Your task to perform on an android device: Show me recent news Image 0: 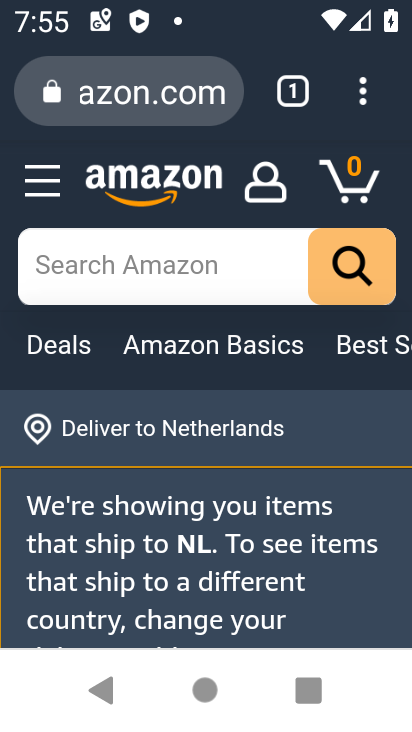
Step 0: press home button
Your task to perform on an android device: Show me recent news Image 1: 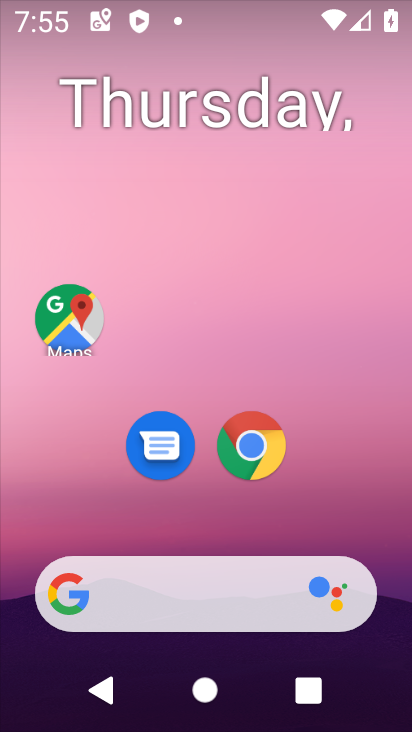
Step 1: drag from (390, 618) to (260, 12)
Your task to perform on an android device: Show me recent news Image 2: 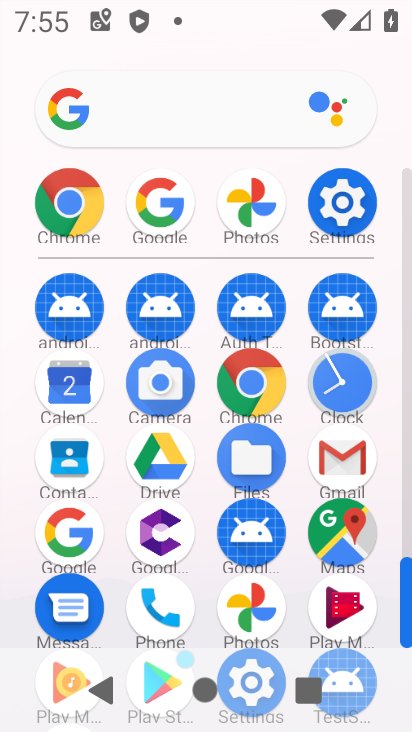
Step 2: click (48, 541)
Your task to perform on an android device: Show me recent news Image 3: 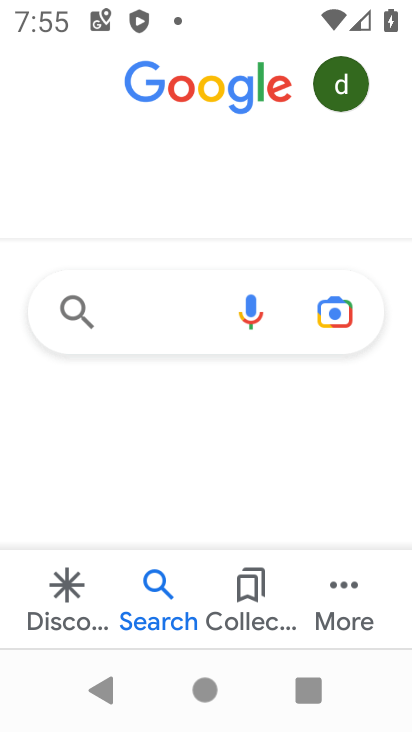
Step 3: click (173, 305)
Your task to perform on an android device: Show me recent news Image 4: 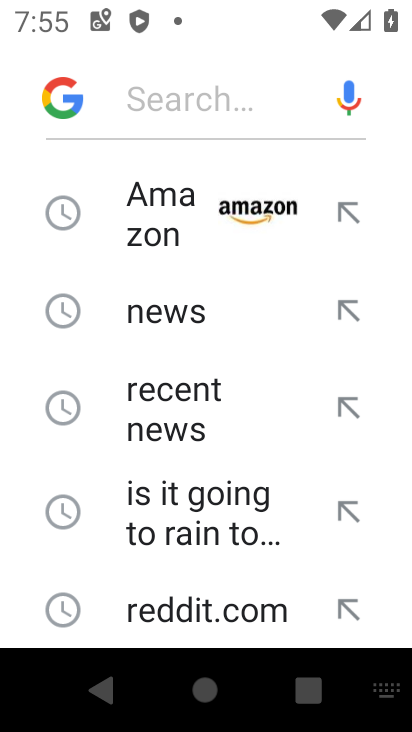
Step 4: click (207, 420)
Your task to perform on an android device: Show me recent news Image 5: 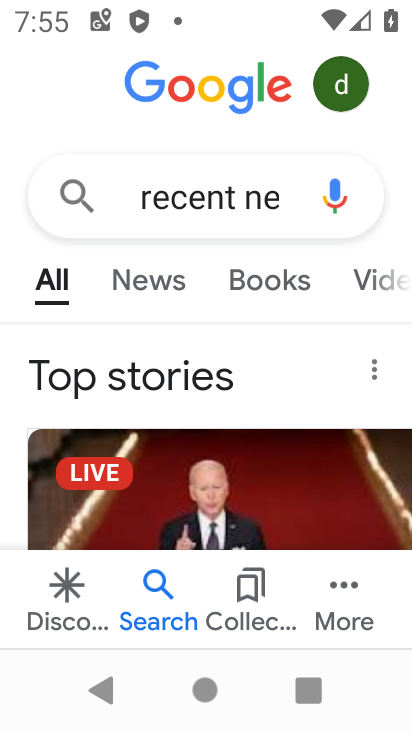
Step 5: task complete